Your task to perform on an android device: search for starred emails in the gmail app Image 0: 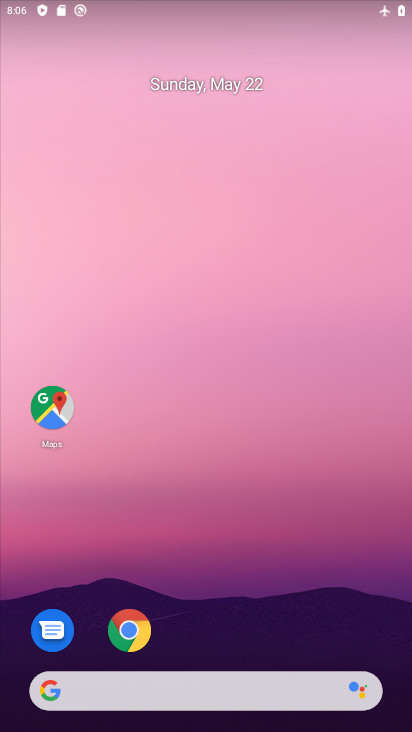
Step 0: drag from (377, 639) to (312, 146)
Your task to perform on an android device: search for starred emails in the gmail app Image 1: 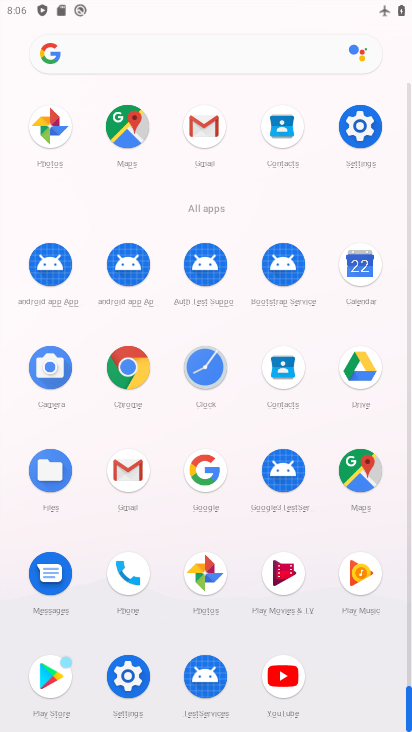
Step 1: click (124, 470)
Your task to perform on an android device: search for starred emails in the gmail app Image 2: 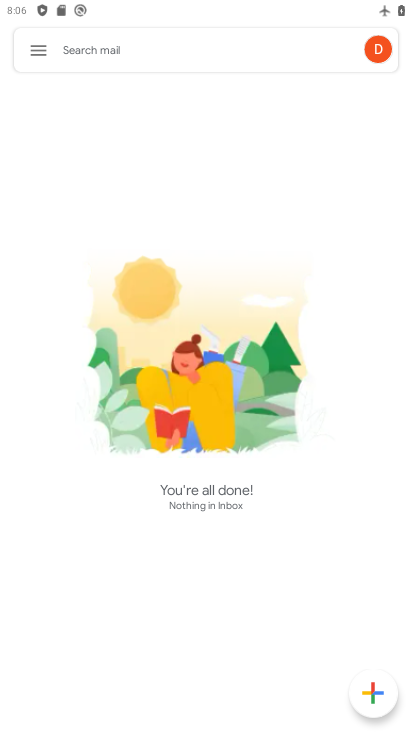
Step 2: click (35, 44)
Your task to perform on an android device: search for starred emails in the gmail app Image 3: 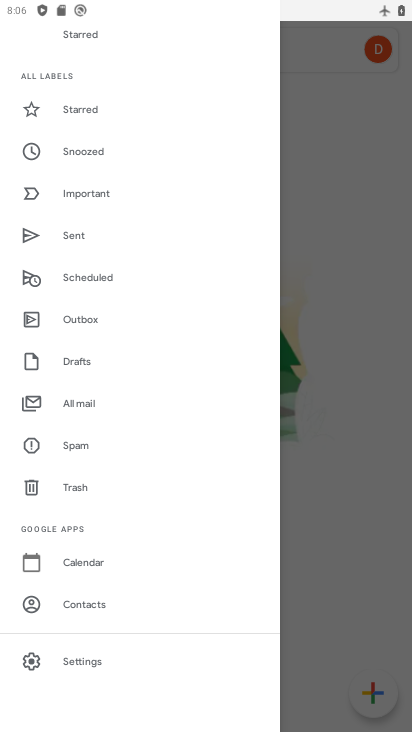
Step 3: click (84, 107)
Your task to perform on an android device: search for starred emails in the gmail app Image 4: 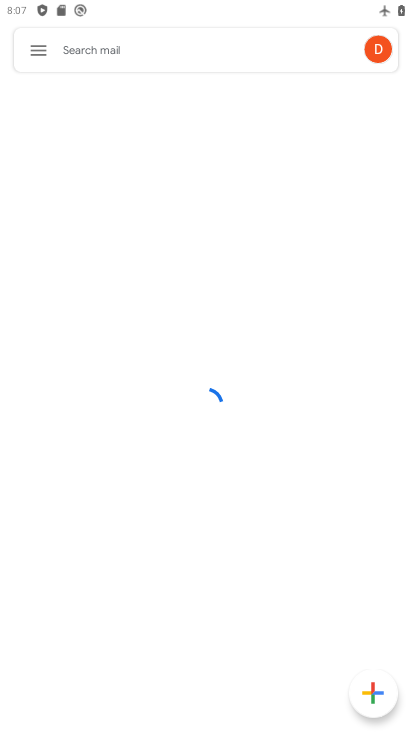
Step 4: task complete